Your task to perform on an android device: show emergency info Image 0: 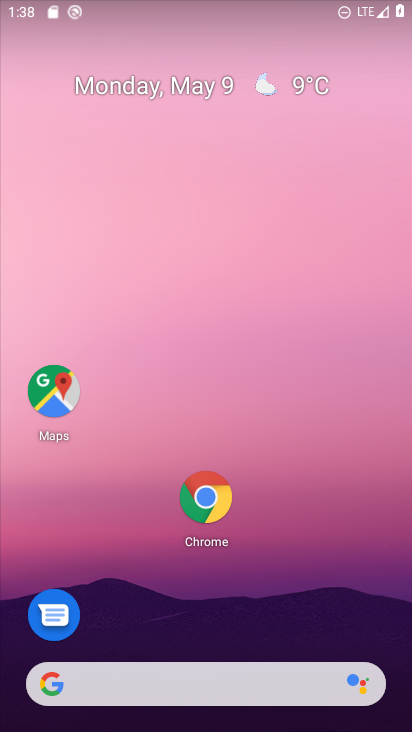
Step 0: drag from (327, 560) to (340, 154)
Your task to perform on an android device: show emergency info Image 1: 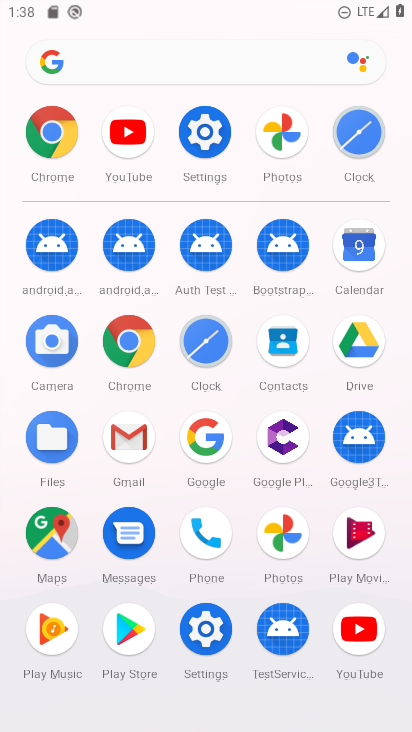
Step 1: click (206, 639)
Your task to perform on an android device: show emergency info Image 2: 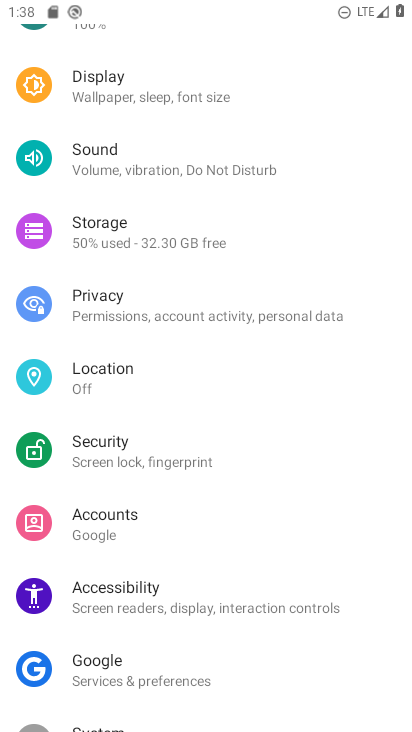
Step 2: drag from (259, 682) to (314, 117)
Your task to perform on an android device: show emergency info Image 3: 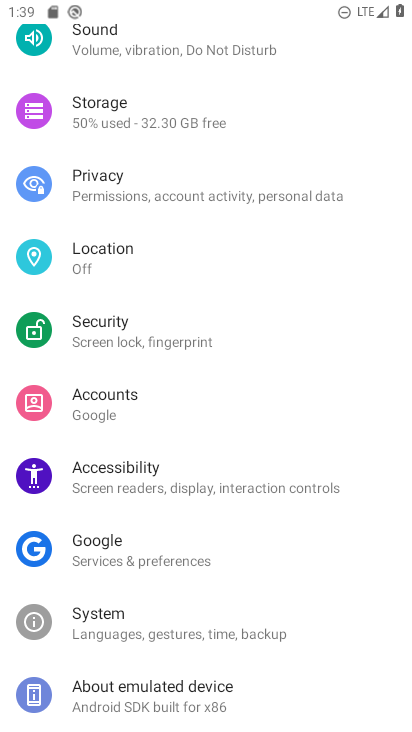
Step 3: click (172, 686)
Your task to perform on an android device: show emergency info Image 4: 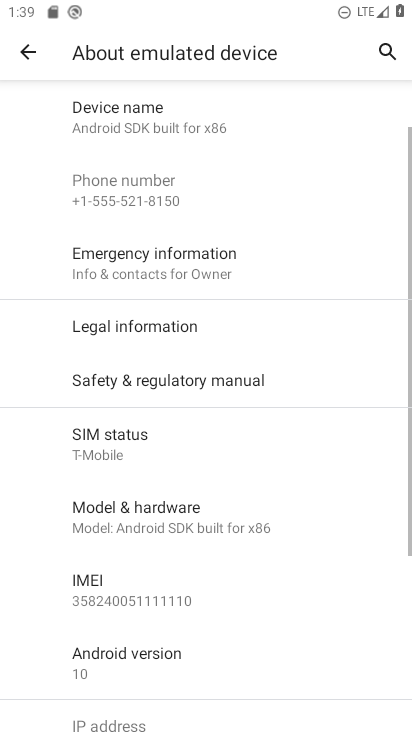
Step 4: click (177, 266)
Your task to perform on an android device: show emergency info Image 5: 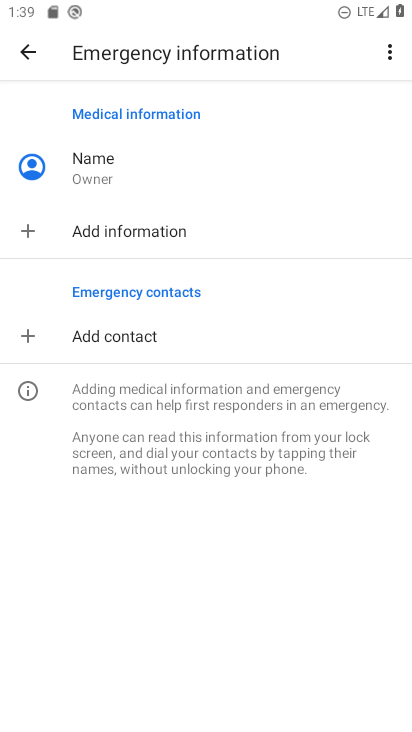
Step 5: task complete